Your task to perform on an android device: toggle translation in the chrome app Image 0: 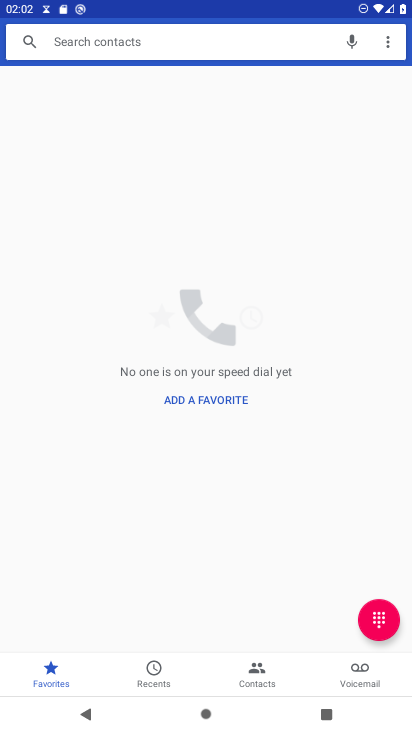
Step 0: press home button
Your task to perform on an android device: toggle translation in the chrome app Image 1: 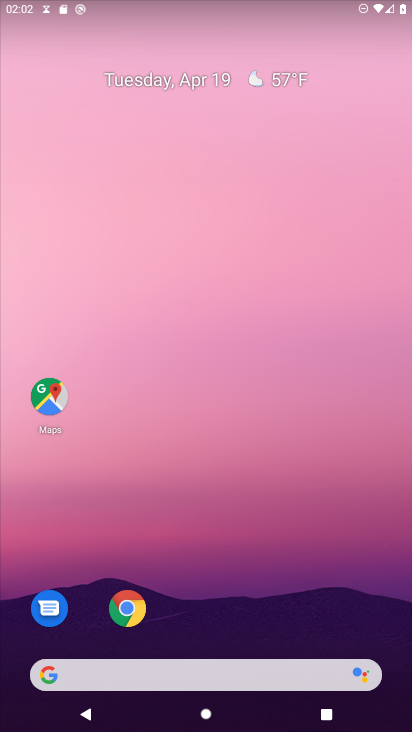
Step 1: click (142, 608)
Your task to perform on an android device: toggle translation in the chrome app Image 2: 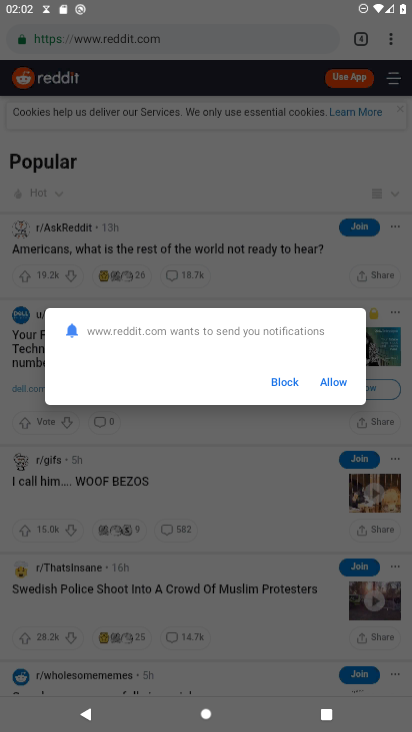
Step 2: click (394, 42)
Your task to perform on an android device: toggle translation in the chrome app Image 3: 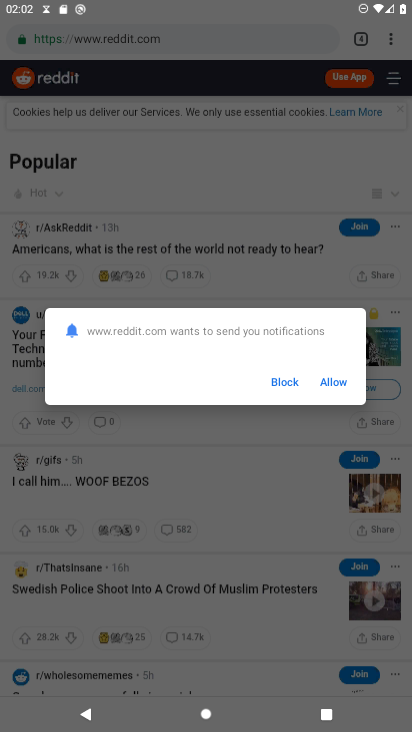
Step 3: click (292, 389)
Your task to perform on an android device: toggle translation in the chrome app Image 4: 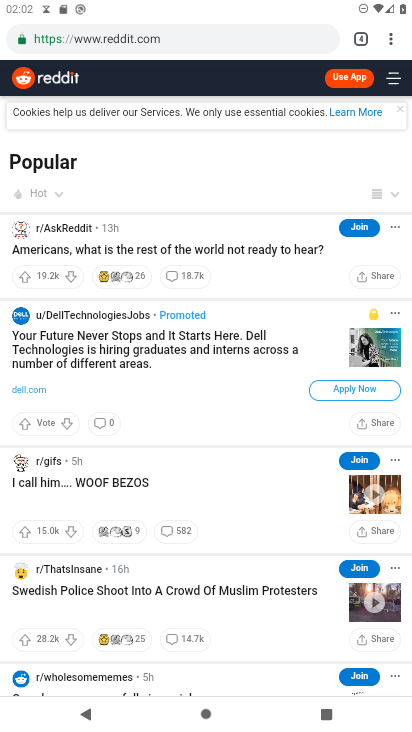
Step 4: click (388, 40)
Your task to perform on an android device: toggle translation in the chrome app Image 5: 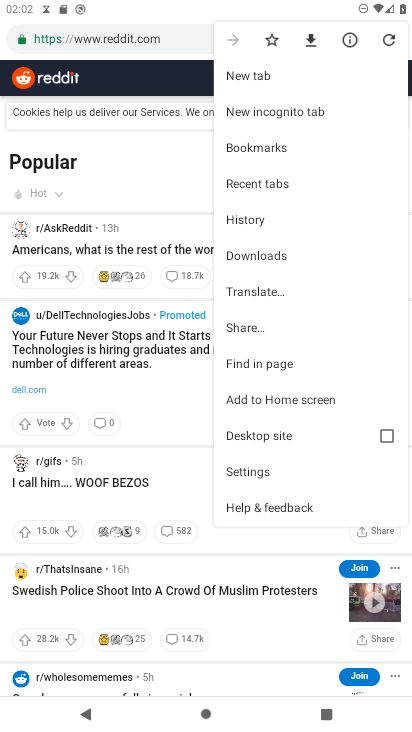
Step 5: click (254, 470)
Your task to perform on an android device: toggle translation in the chrome app Image 6: 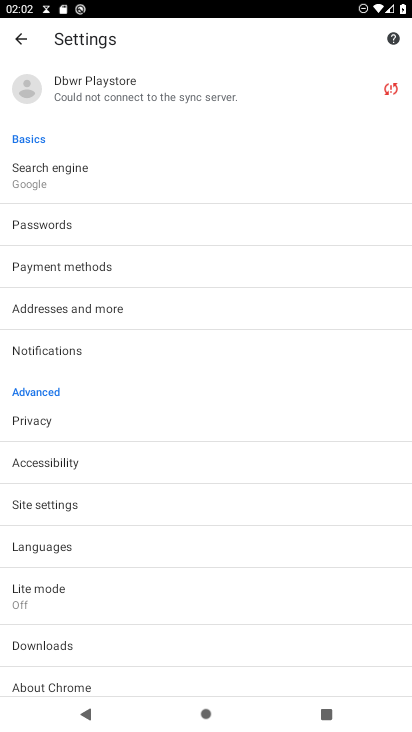
Step 6: click (60, 548)
Your task to perform on an android device: toggle translation in the chrome app Image 7: 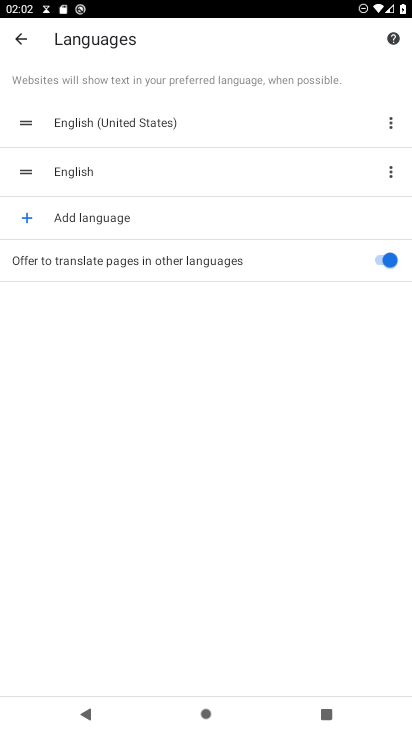
Step 7: click (394, 257)
Your task to perform on an android device: toggle translation in the chrome app Image 8: 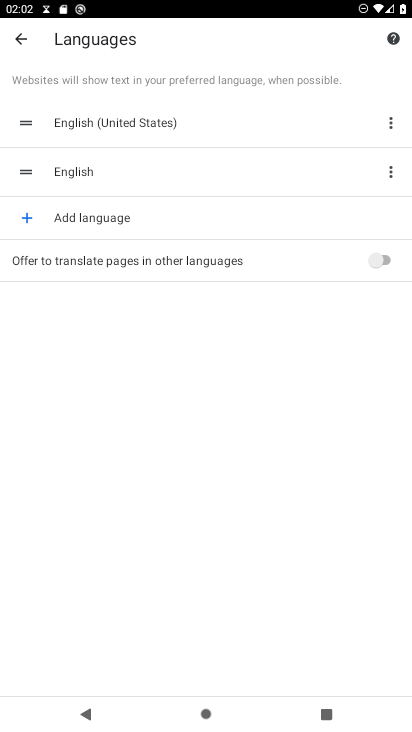
Step 8: task complete